Your task to perform on an android device: Go to location settings Image 0: 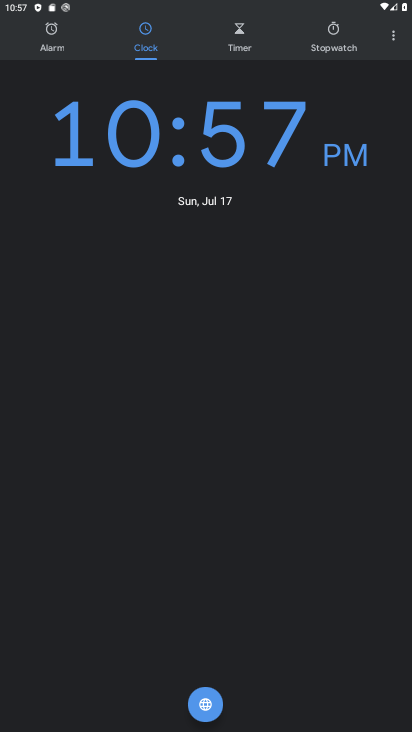
Step 0: press back button
Your task to perform on an android device: Go to location settings Image 1: 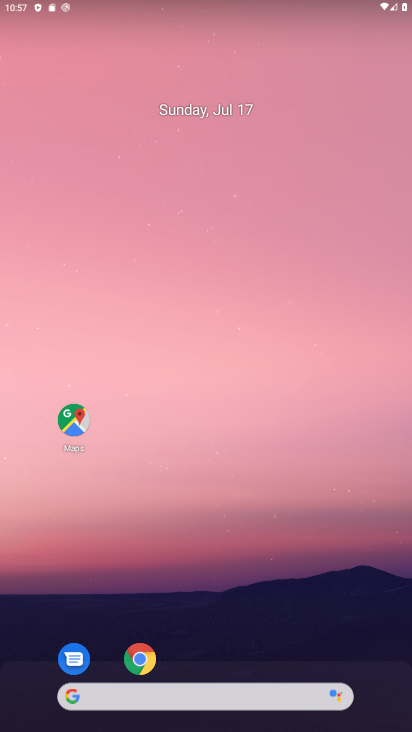
Step 1: drag from (225, 429) to (226, 94)
Your task to perform on an android device: Go to location settings Image 2: 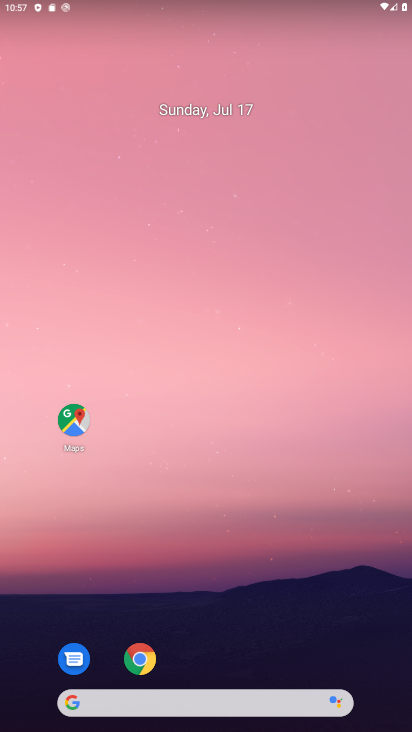
Step 2: drag from (215, 555) to (270, 32)
Your task to perform on an android device: Go to location settings Image 3: 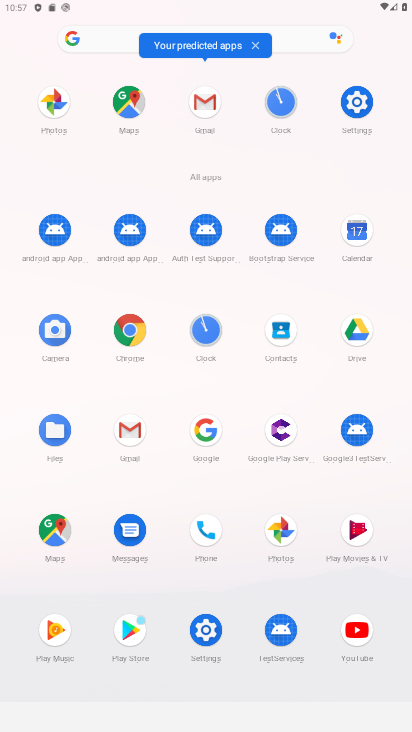
Step 3: click (342, 93)
Your task to perform on an android device: Go to location settings Image 4: 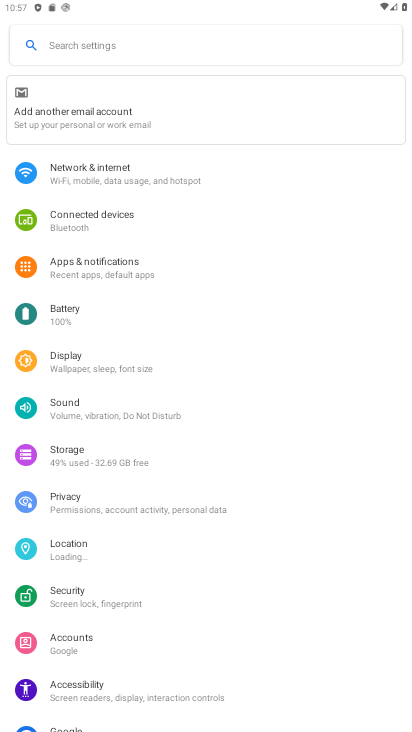
Step 4: click (75, 556)
Your task to perform on an android device: Go to location settings Image 5: 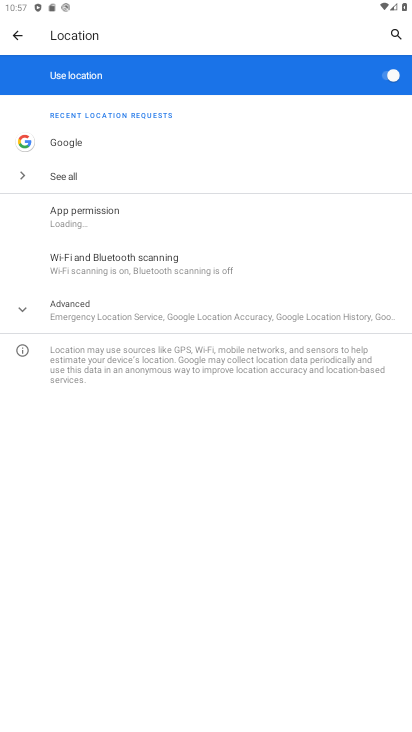
Step 5: task complete